Your task to perform on an android device: open app "YouTube Kids" (install if not already installed) Image 0: 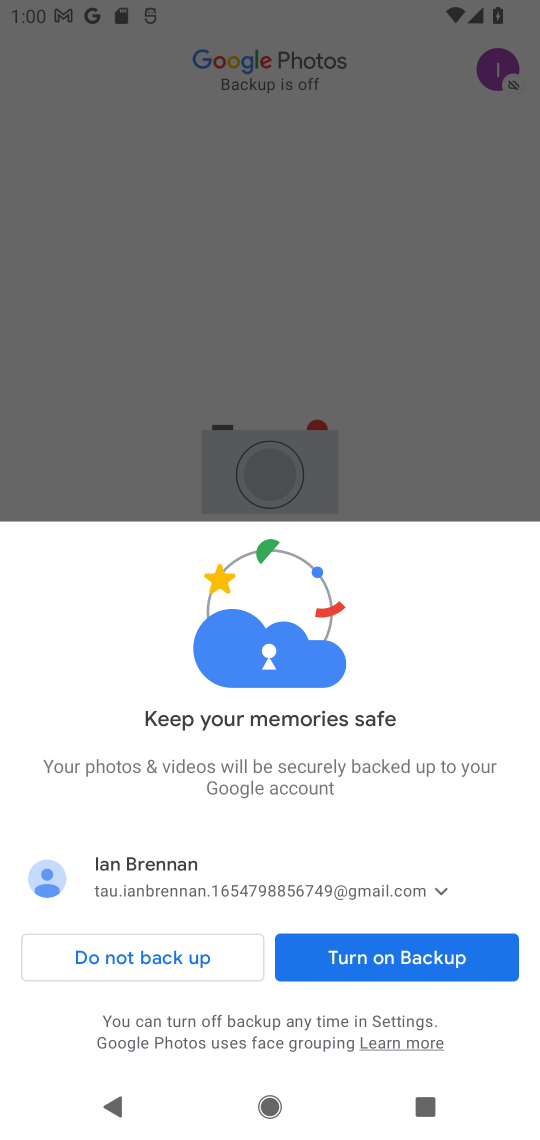
Step 0: press home button
Your task to perform on an android device: open app "YouTube Kids" (install if not already installed) Image 1: 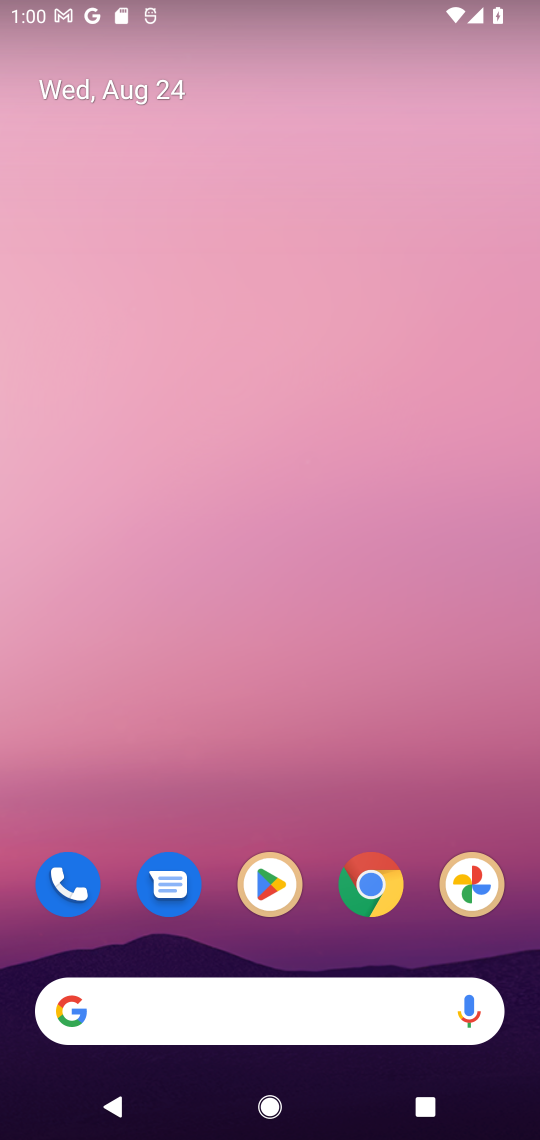
Step 1: drag from (195, 1031) to (257, 246)
Your task to perform on an android device: open app "YouTube Kids" (install if not already installed) Image 2: 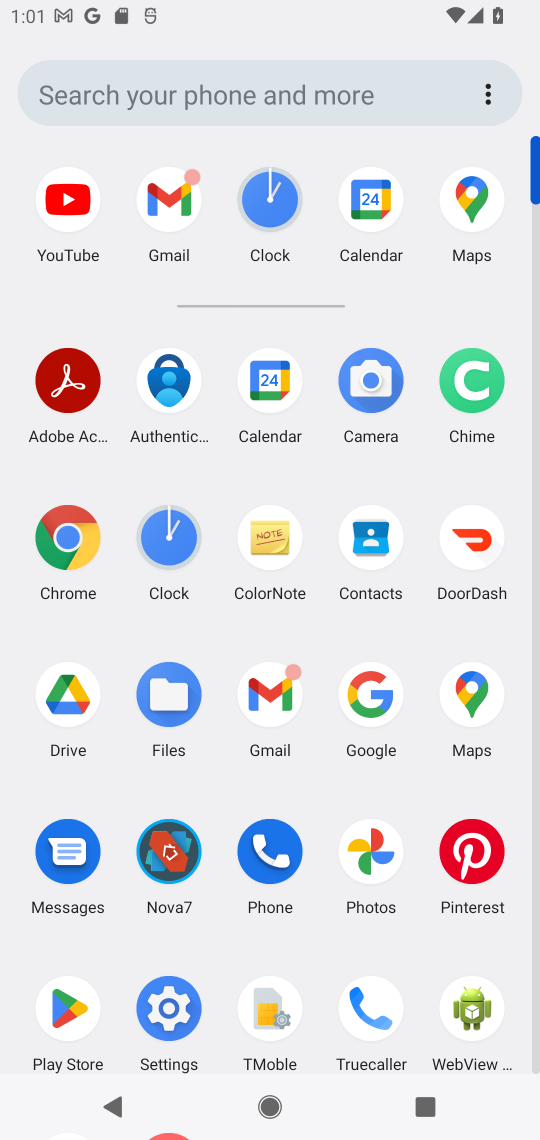
Step 2: click (72, 1004)
Your task to perform on an android device: open app "YouTube Kids" (install if not already installed) Image 3: 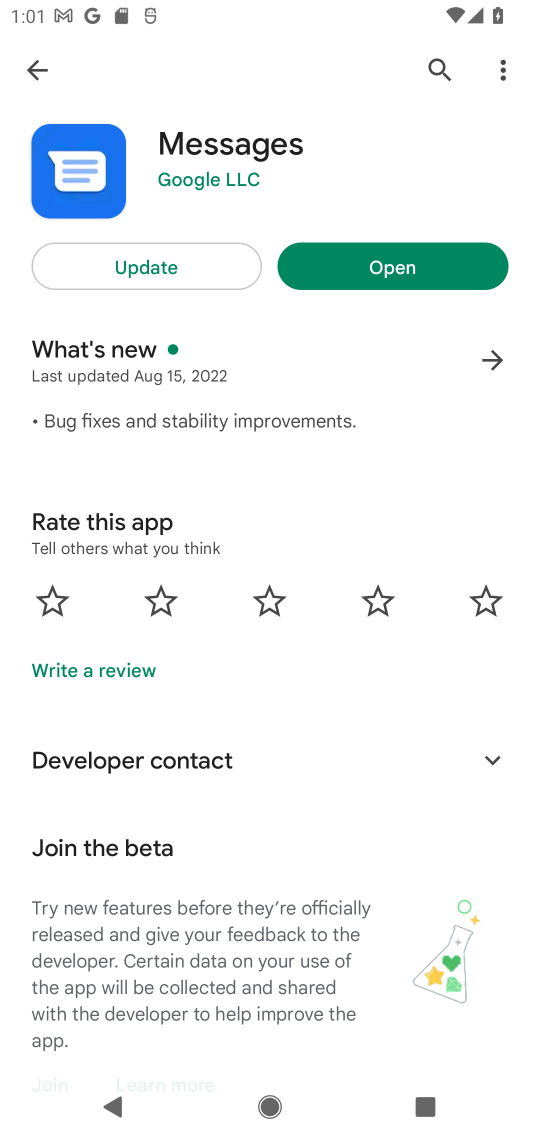
Step 3: press back button
Your task to perform on an android device: open app "YouTube Kids" (install if not already installed) Image 4: 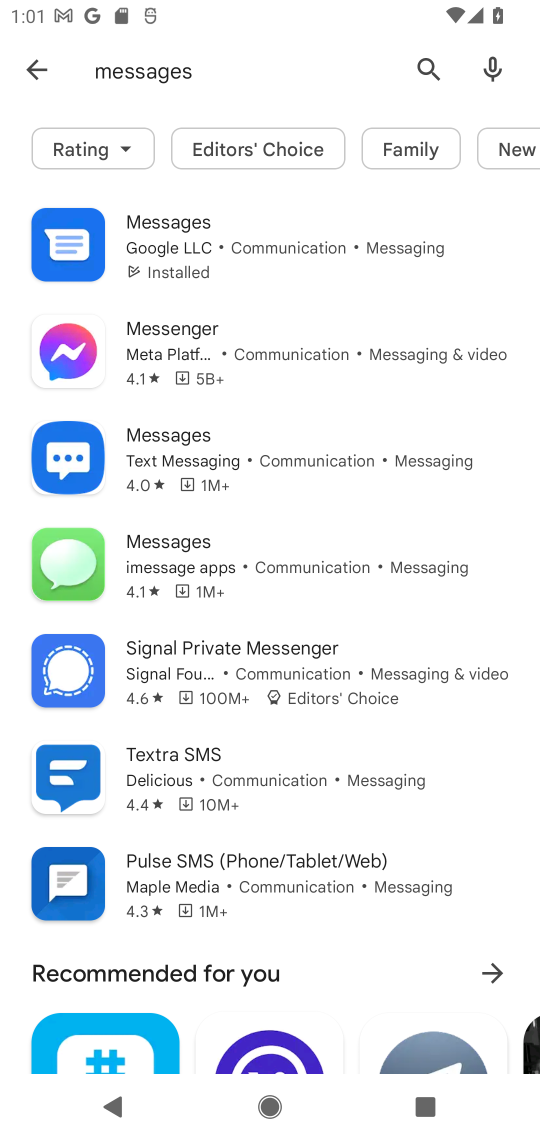
Step 4: press back button
Your task to perform on an android device: open app "YouTube Kids" (install if not already installed) Image 5: 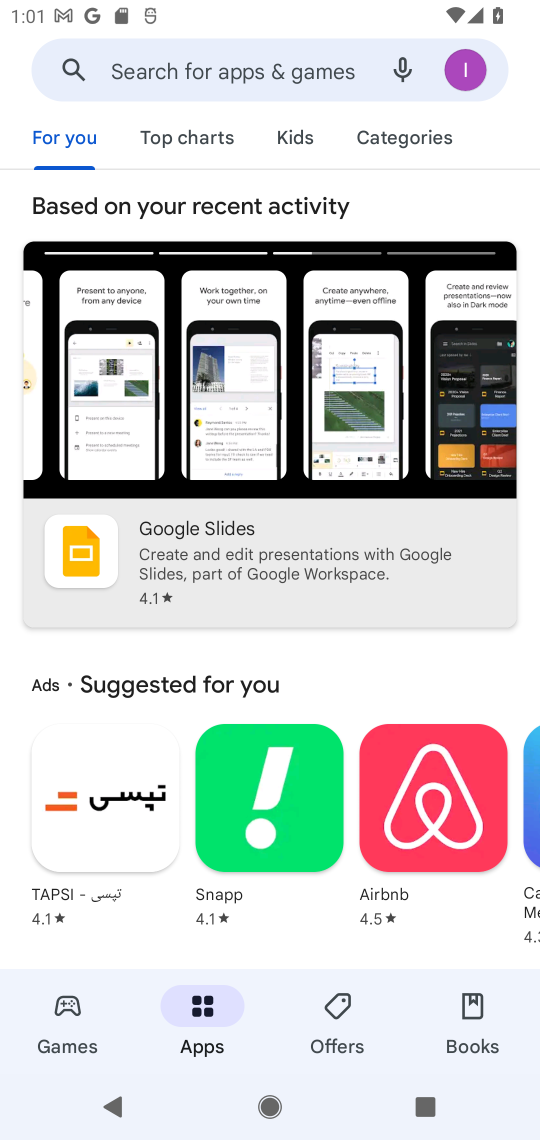
Step 5: click (293, 72)
Your task to perform on an android device: open app "YouTube Kids" (install if not already installed) Image 6: 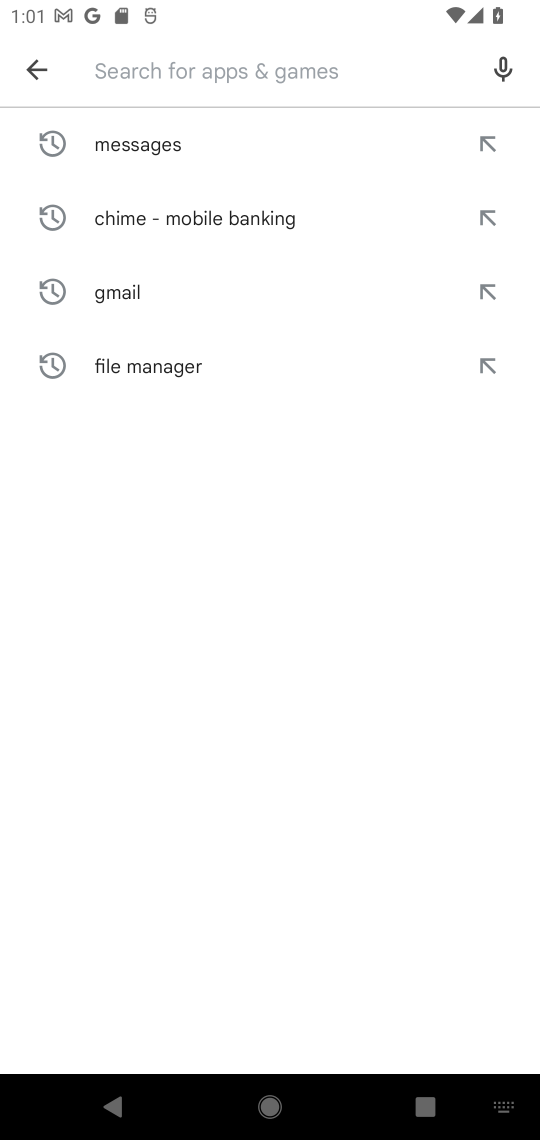
Step 6: type "YouTube Kids"
Your task to perform on an android device: open app "YouTube Kids" (install if not already installed) Image 7: 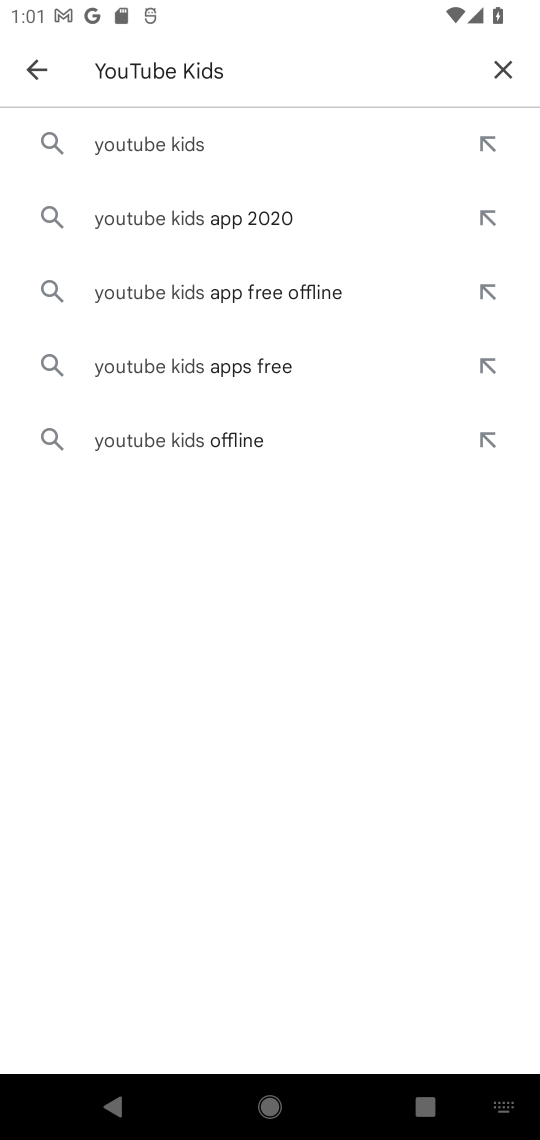
Step 7: click (139, 140)
Your task to perform on an android device: open app "YouTube Kids" (install if not already installed) Image 8: 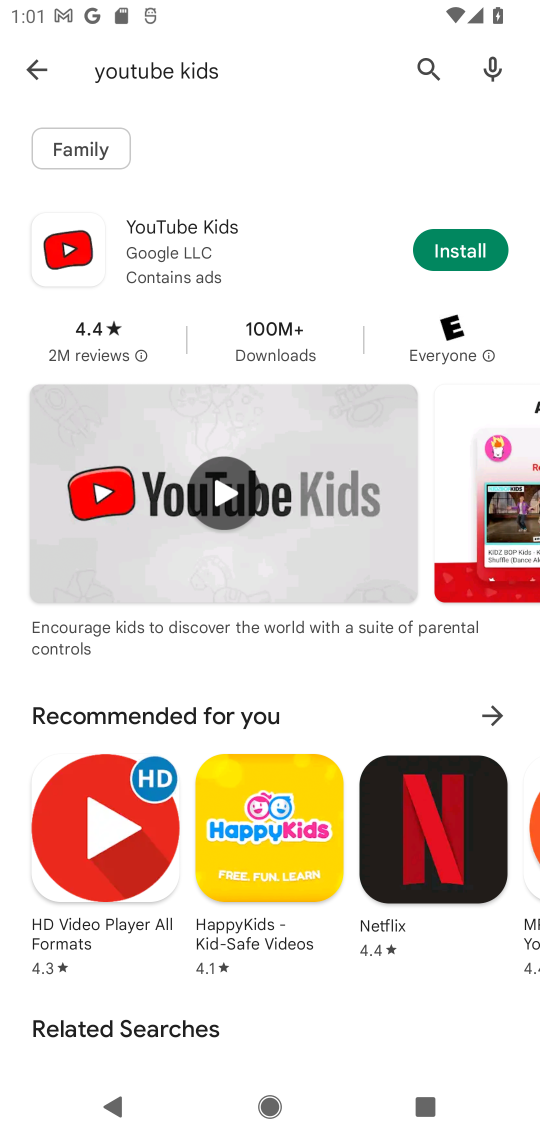
Step 8: click (456, 256)
Your task to perform on an android device: open app "YouTube Kids" (install if not already installed) Image 9: 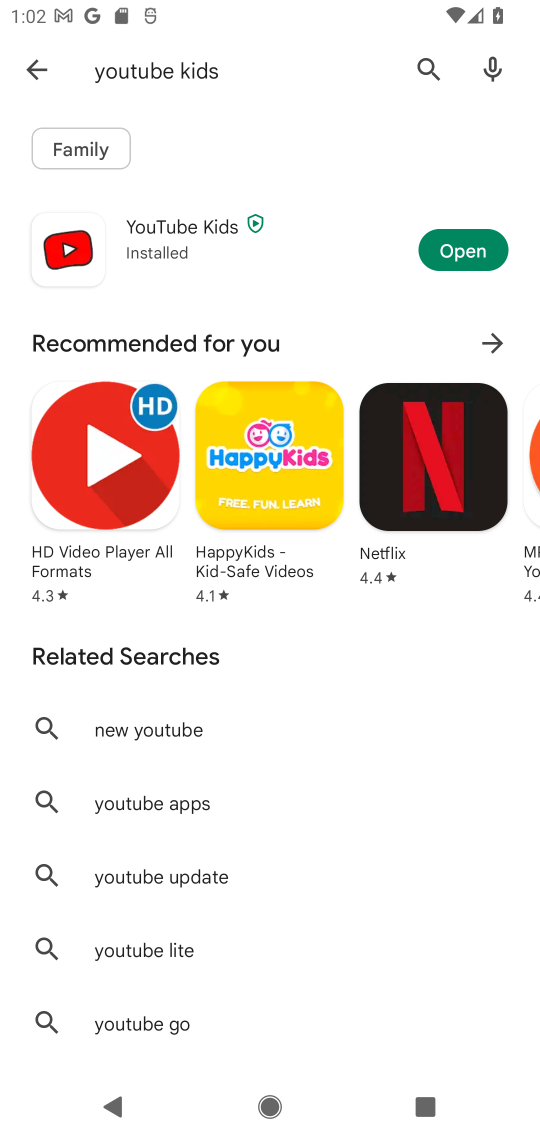
Step 9: click (456, 245)
Your task to perform on an android device: open app "YouTube Kids" (install if not already installed) Image 10: 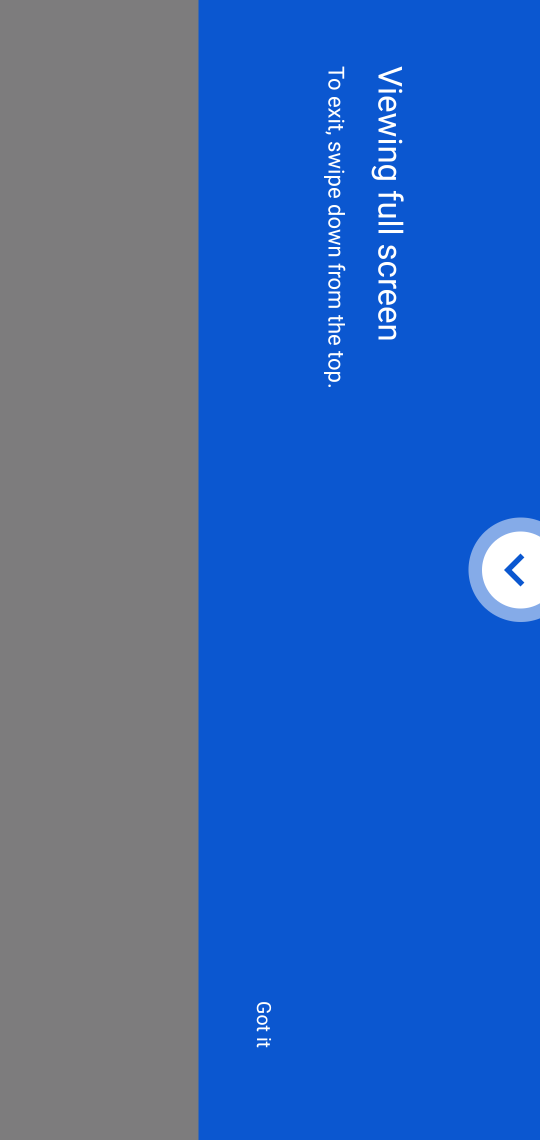
Step 10: click (269, 1020)
Your task to perform on an android device: open app "YouTube Kids" (install if not already installed) Image 11: 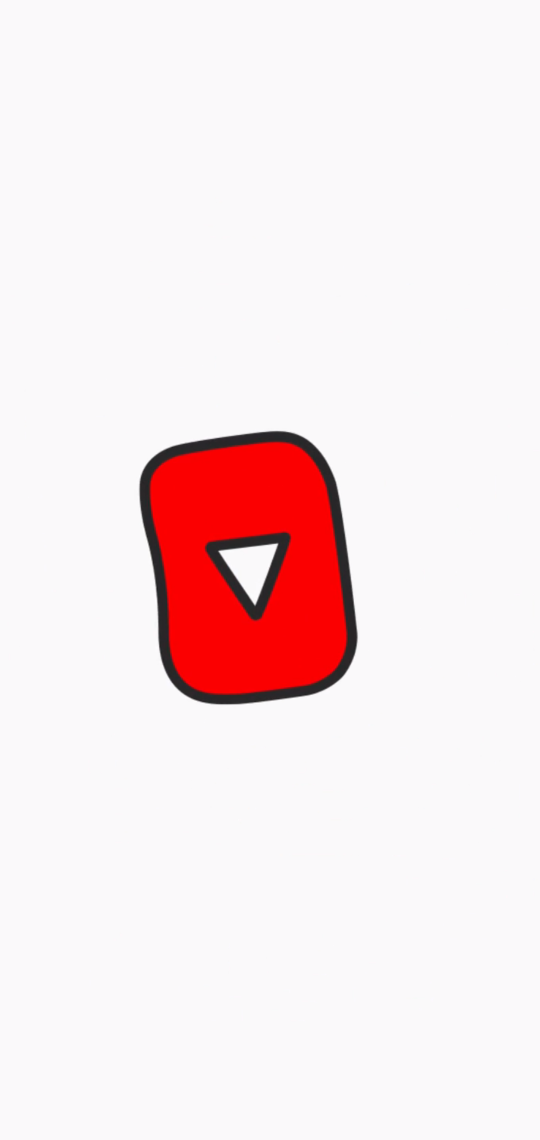
Step 11: task complete